Your task to perform on an android device: Open settings Image 0: 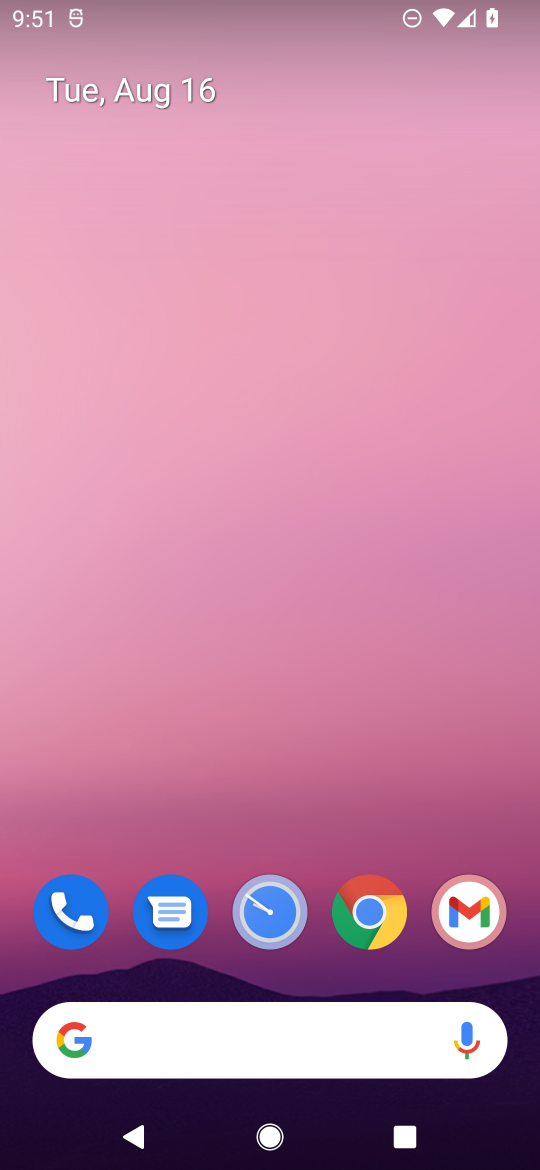
Step 0: drag from (216, 974) to (306, 81)
Your task to perform on an android device: Open settings Image 1: 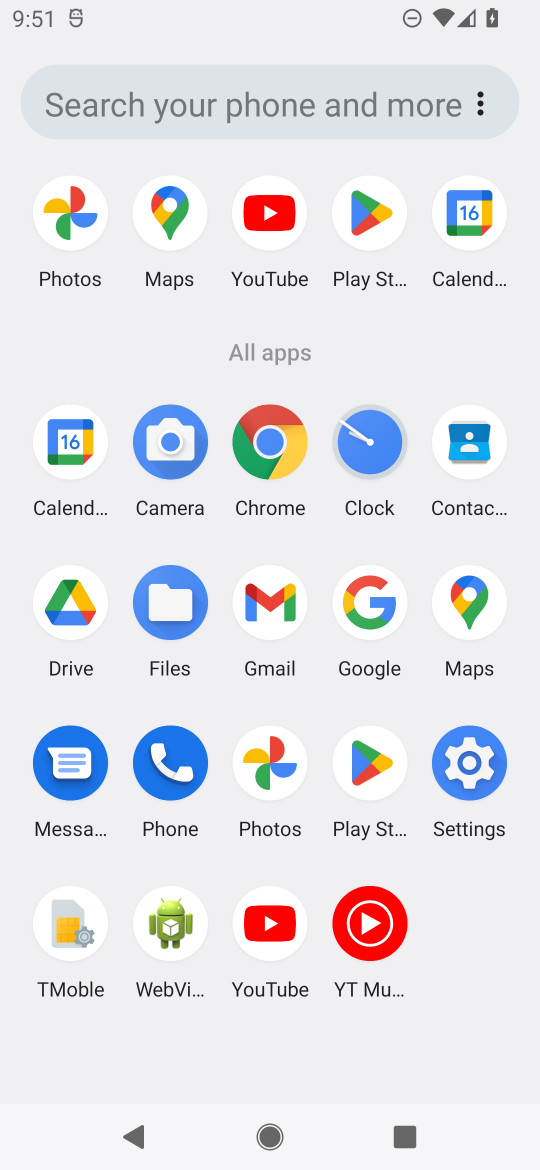
Step 1: click (482, 767)
Your task to perform on an android device: Open settings Image 2: 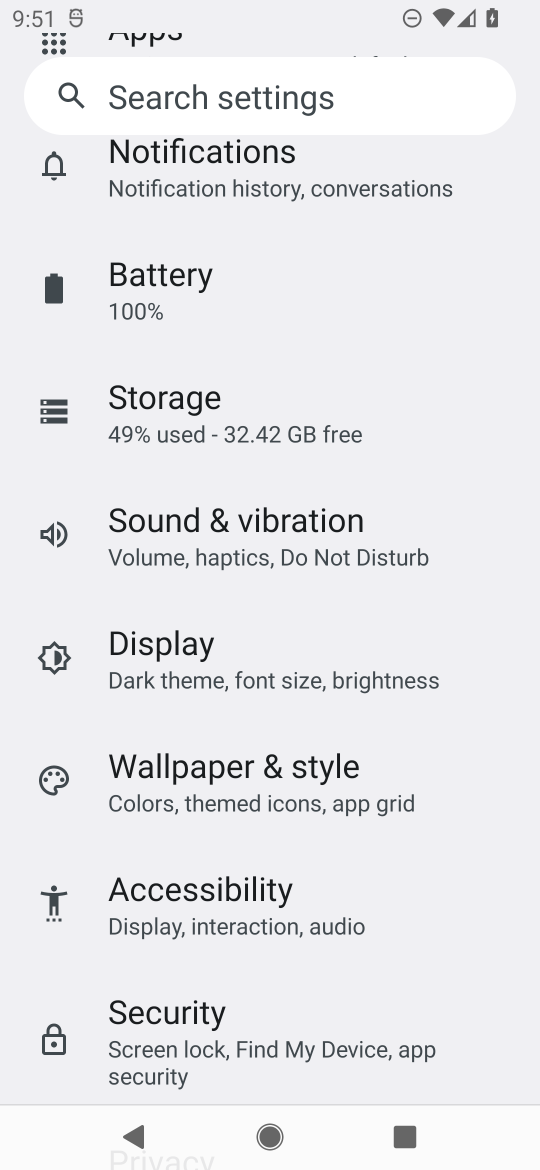
Step 2: task complete